Your task to perform on an android device: Open Chrome and go to settings Image 0: 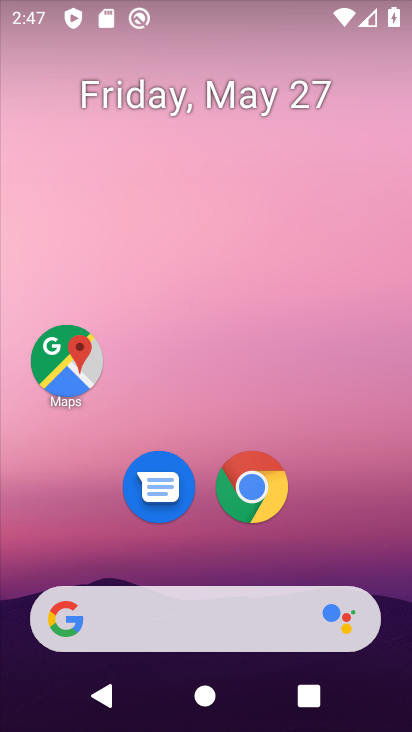
Step 0: click (231, 488)
Your task to perform on an android device: Open Chrome and go to settings Image 1: 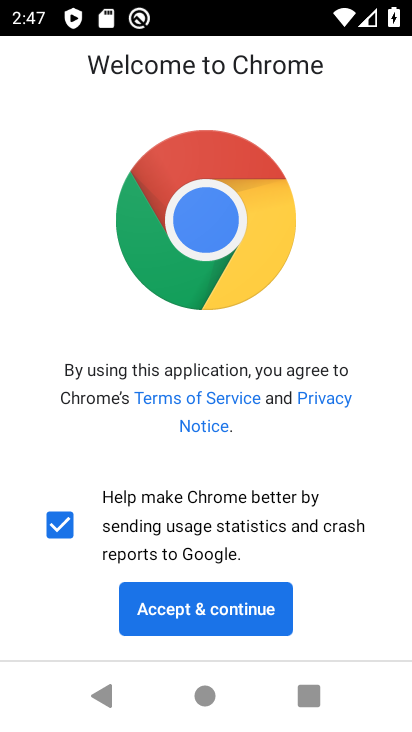
Step 1: click (253, 604)
Your task to perform on an android device: Open Chrome and go to settings Image 2: 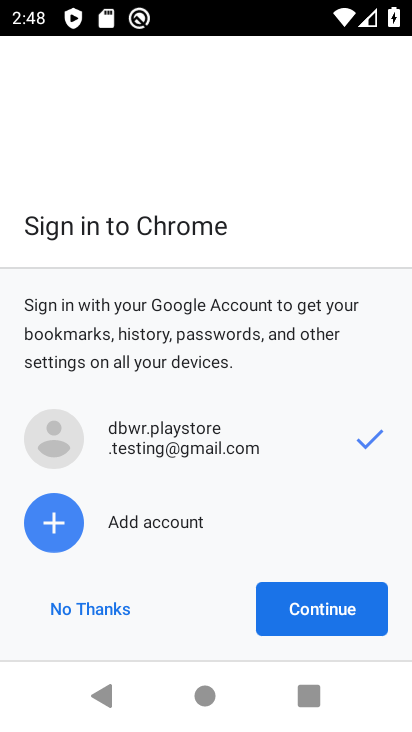
Step 2: click (305, 616)
Your task to perform on an android device: Open Chrome and go to settings Image 3: 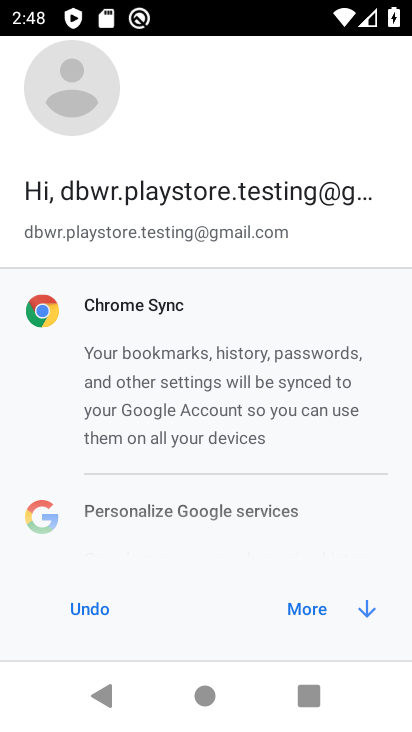
Step 3: click (319, 604)
Your task to perform on an android device: Open Chrome and go to settings Image 4: 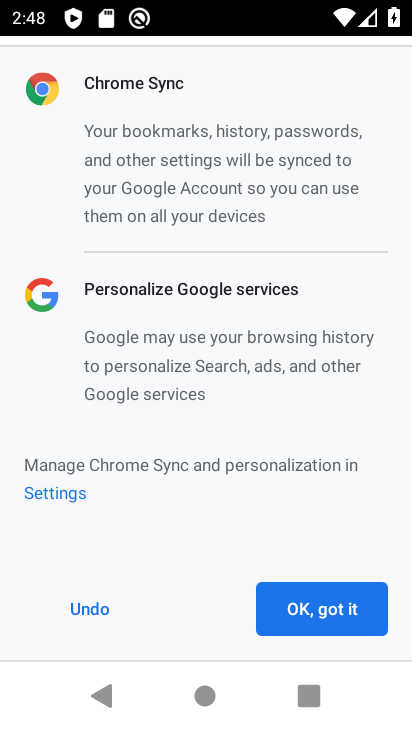
Step 4: click (318, 604)
Your task to perform on an android device: Open Chrome and go to settings Image 5: 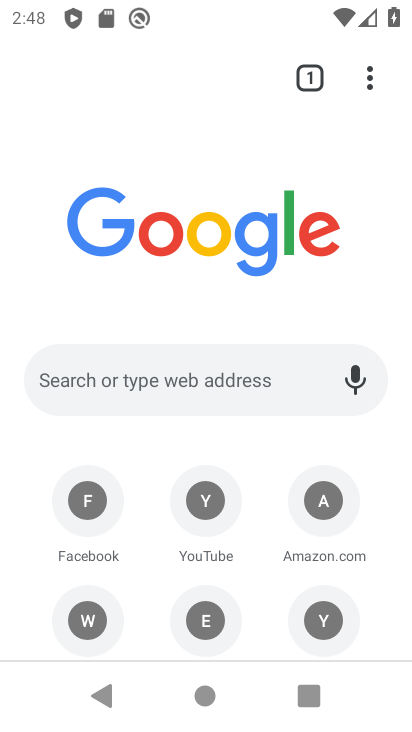
Step 5: click (365, 84)
Your task to perform on an android device: Open Chrome and go to settings Image 6: 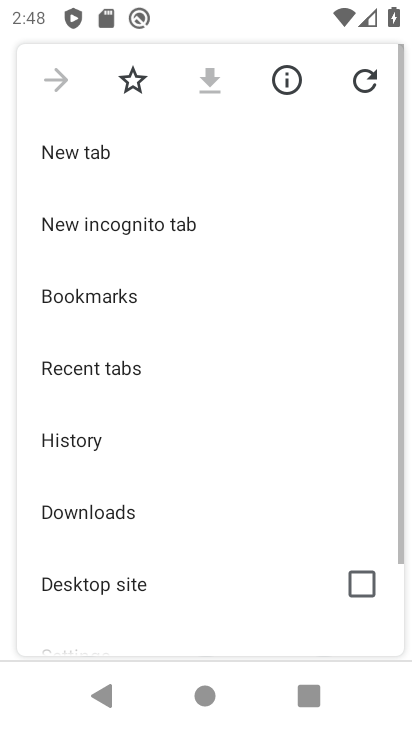
Step 6: drag from (153, 583) to (165, 236)
Your task to perform on an android device: Open Chrome and go to settings Image 7: 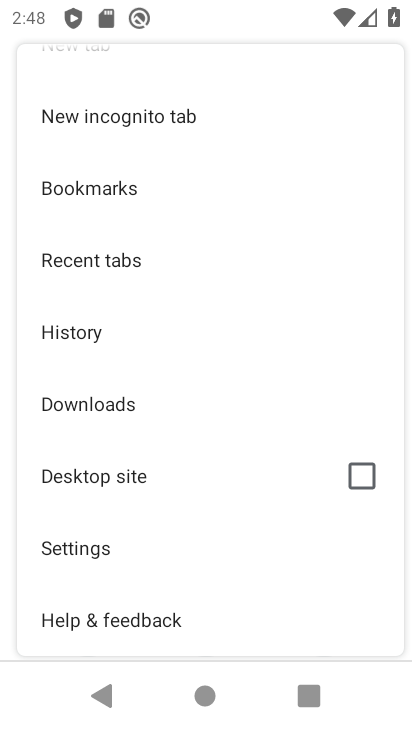
Step 7: click (91, 557)
Your task to perform on an android device: Open Chrome and go to settings Image 8: 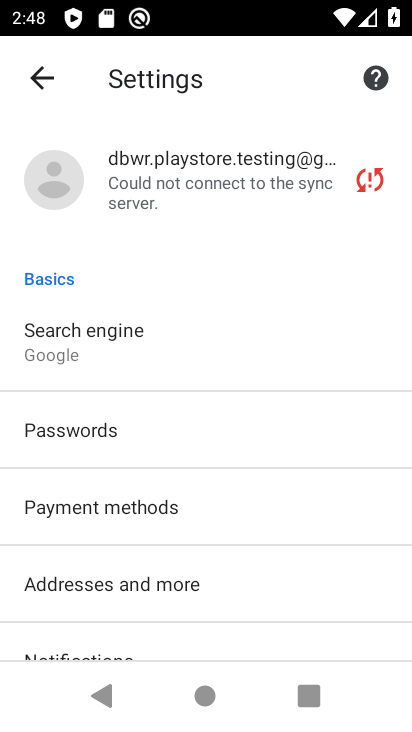
Step 8: task complete